Your task to perform on an android device: Go to Amazon Image 0: 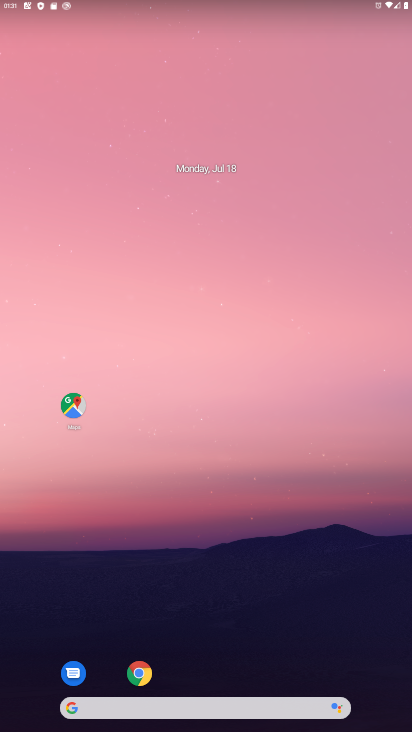
Step 0: click (135, 680)
Your task to perform on an android device: Go to Amazon Image 1: 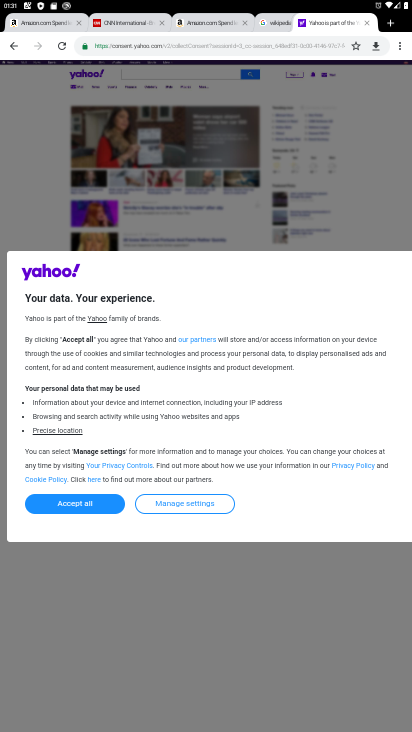
Step 1: click (387, 26)
Your task to perform on an android device: Go to Amazon Image 2: 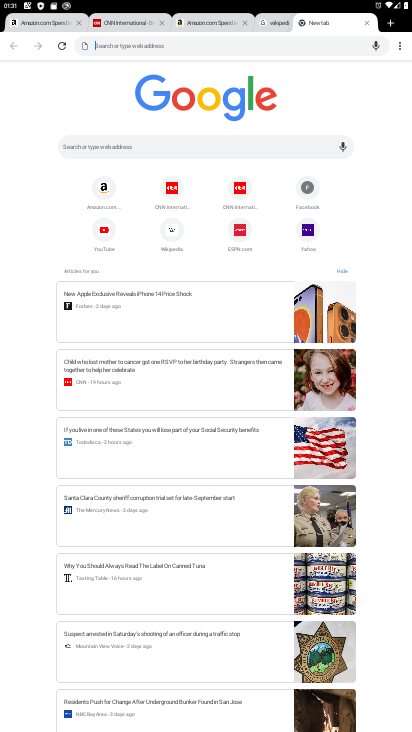
Step 2: click (99, 192)
Your task to perform on an android device: Go to Amazon Image 3: 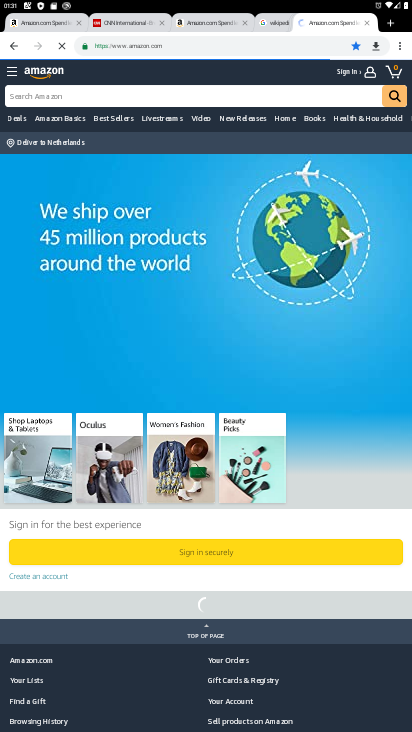
Step 3: task complete